Your task to perform on an android device: Search for sushi restaurants on Maps Image 0: 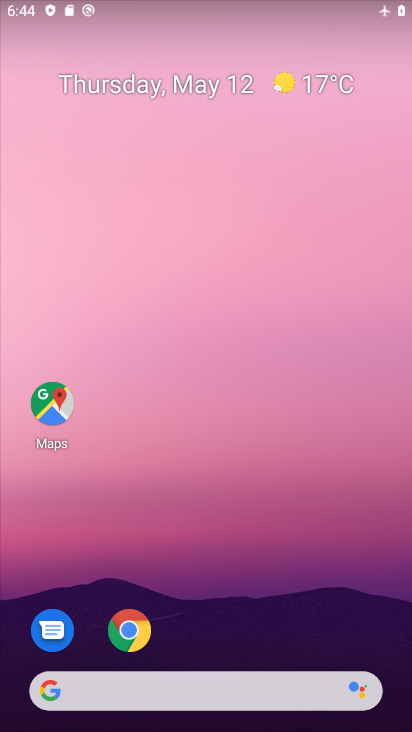
Step 0: drag from (304, 613) to (188, 1)
Your task to perform on an android device: Search for sushi restaurants on Maps Image 1: 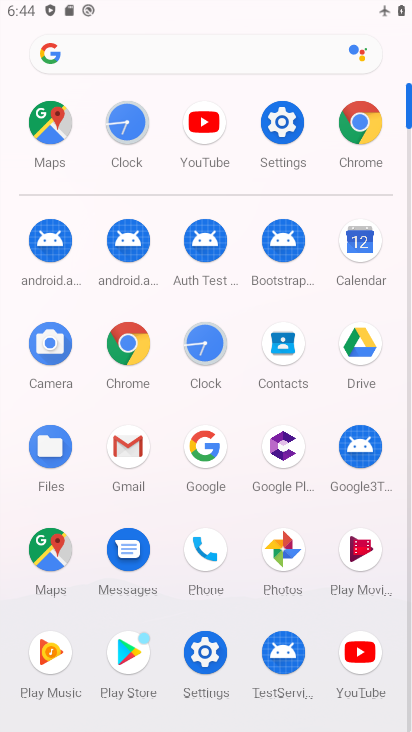
Step 1: click (54, 573)
Your task to perform on an android device: Search for sushi restaurants on Maps Image 2: 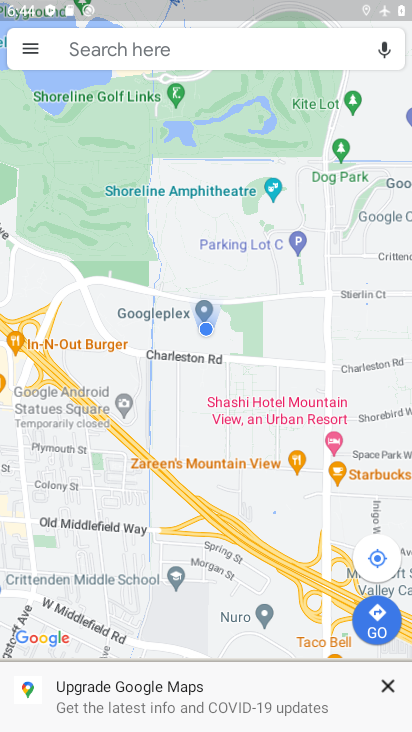
Step 2: click (176, 40)
Your task to perform on an android device: Search for sushi restaurants on Maps Image 3: 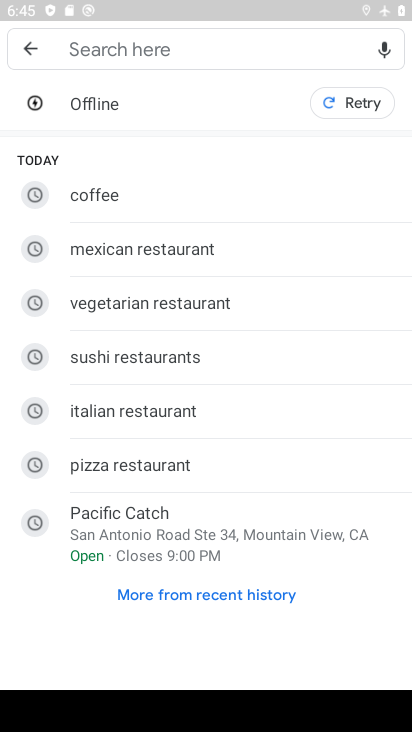
Step 3: click (223, 353)
Your task to perform on an android device: Search for sushi restaurants on Maps Image 4: 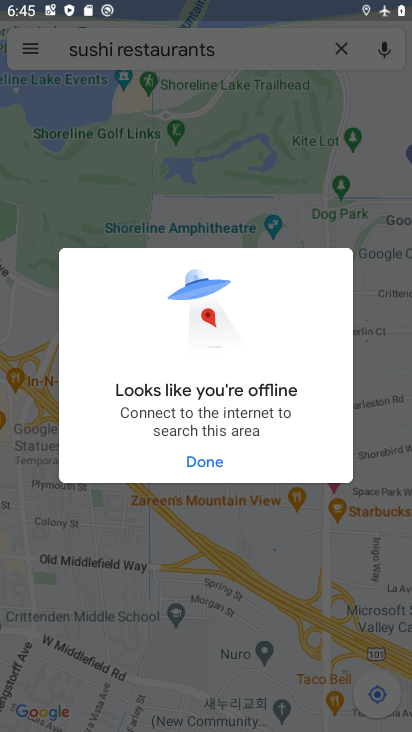
Step 4: task complete